Your task to perform on an android device: turn off location Image 0: 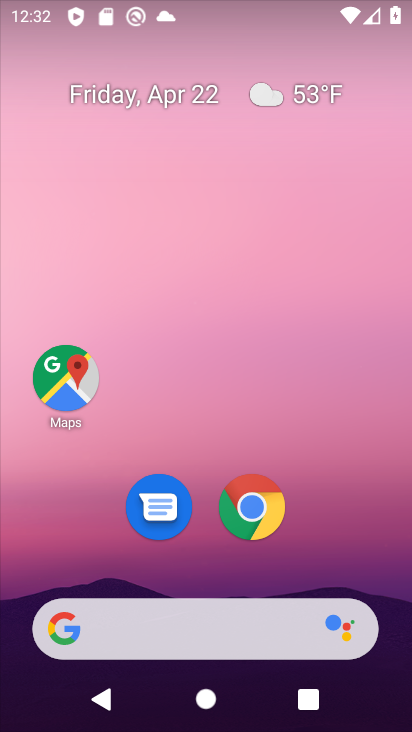
Step 0: drag from (307, 474) to (276, 118)
Your task to perform on an android device: turn off location Image 1: 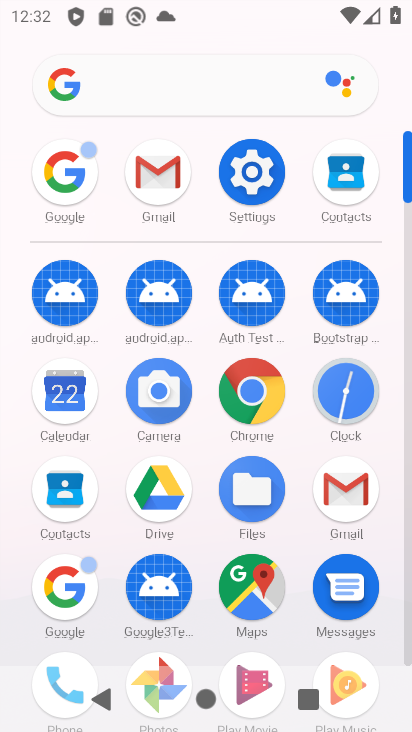
Step 1: click (255, 171)
Your task to perform on an android device: turn off location Image 2: 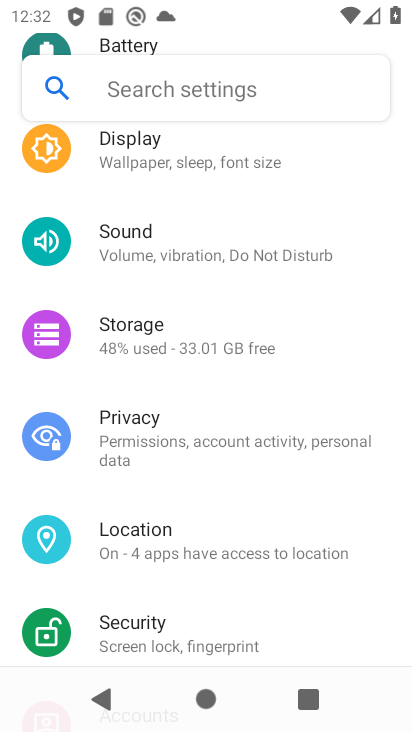
Step 2: click (151, 547)
Your task to perform on an android device: turn off location Image 3: 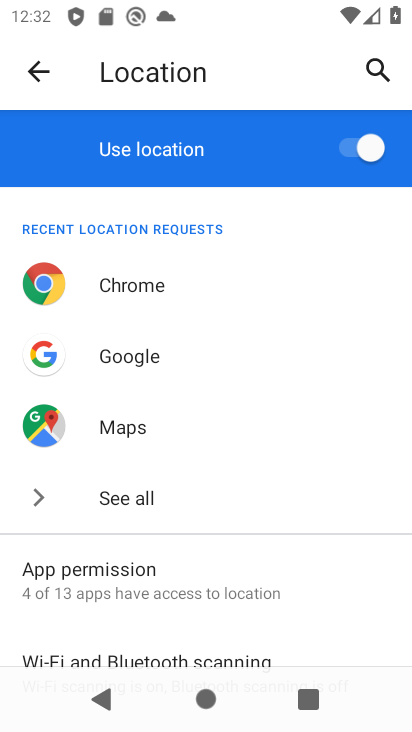
Step 3: click (369, 143)
Your task to perform on an android device: turn off location Image 4: 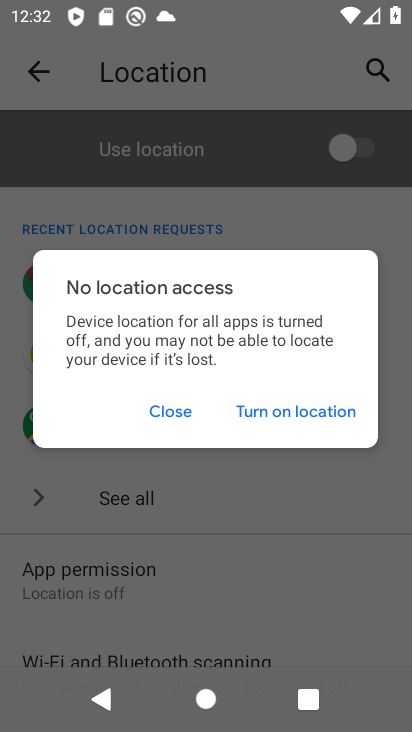
Step 4: task complete